Your task to perform on an android device: Open Google Maps Image 0: 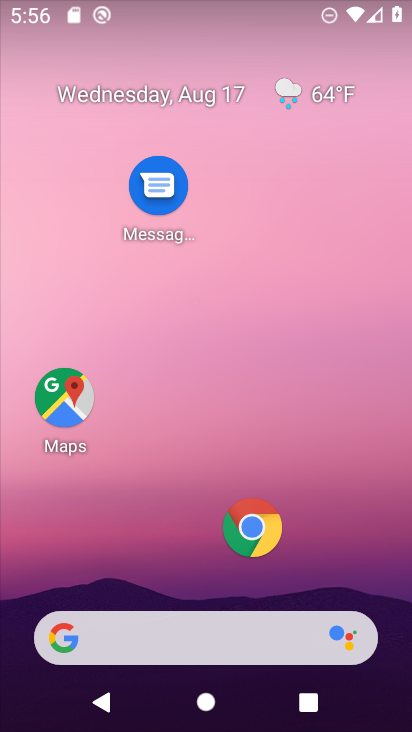
Step 0: drag from (222, 609) to (234, 268)
Your task to perform on an android device: Open Google Maps Image 1: 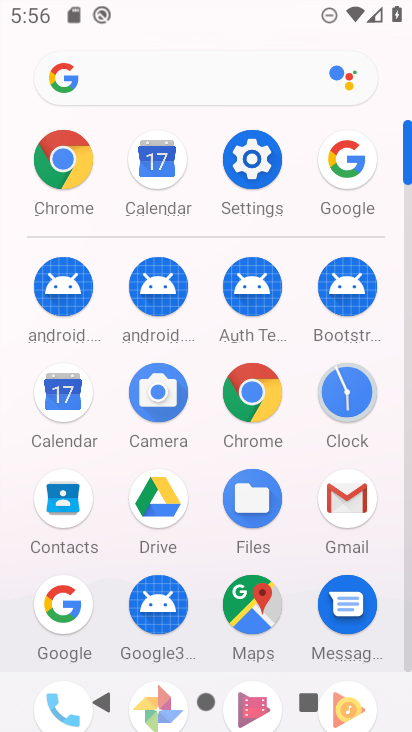
Step 1: click (251, 617)
Your task to perform on an android device: Open Google Maps Image 2: 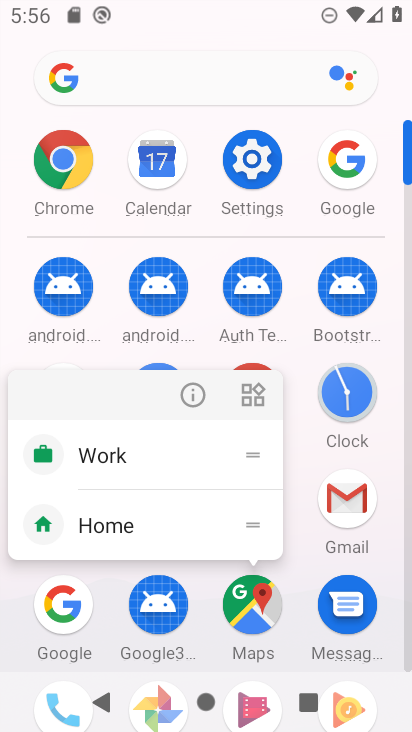
Step 2: click (251, 617)
Your task to perform on an android device: Open Google Maps Image 3: 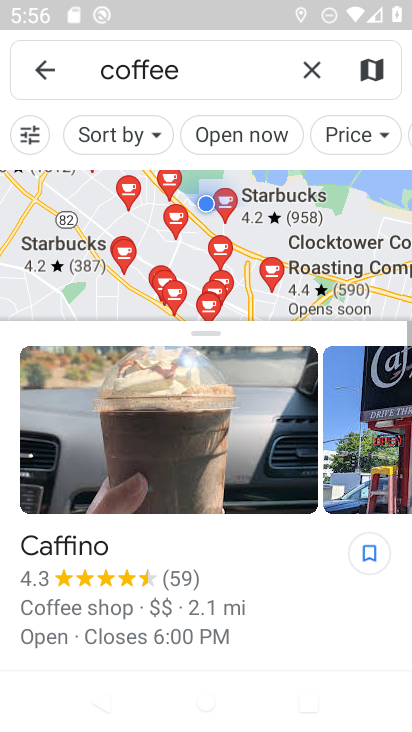
Step 3: drag from (308, 68) to (356, 68)
Your task to perform on an android device: Open Google Maps Image 4: 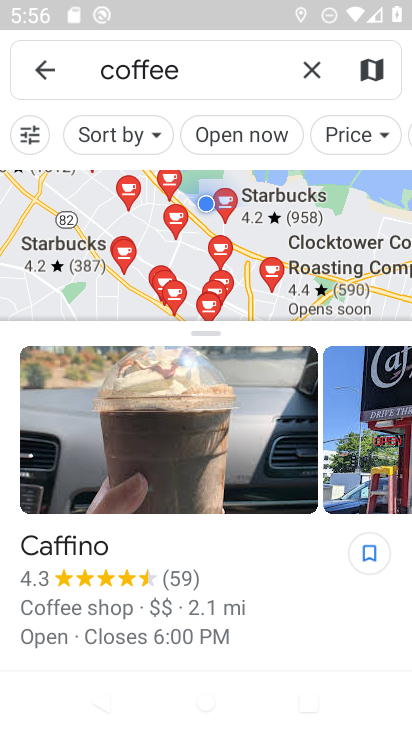
Step 4: click (307, 69)
Your task to perform on an android device: Open Google Maps Image 5: 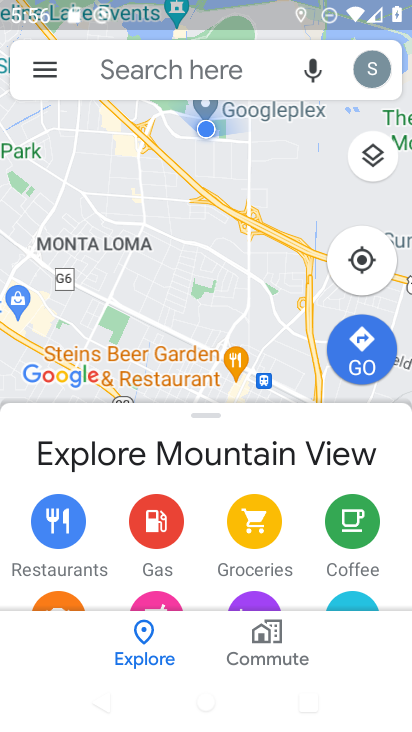
Step 5: task complete